Your task to perform on an android device: Open Chrome and go to the settings page Image 0: 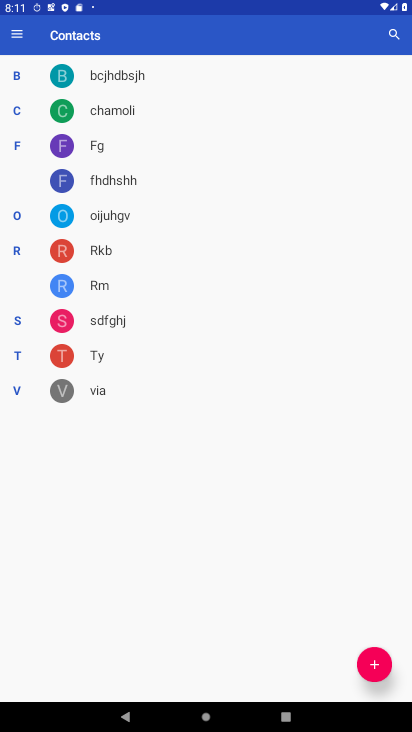
Step 0: press home button
Your task to perform on an android device: Open Chrome and go to the settings page Image 1: 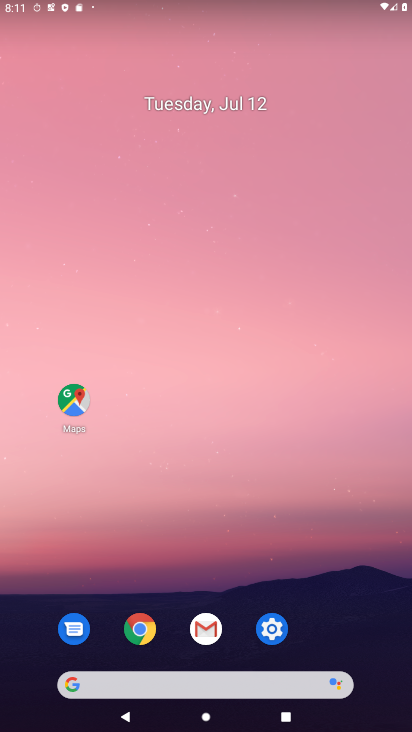
Step 1: click (267, 629)
Your task to perform on an android device: Open Chrome and go to the settings page Image 2: 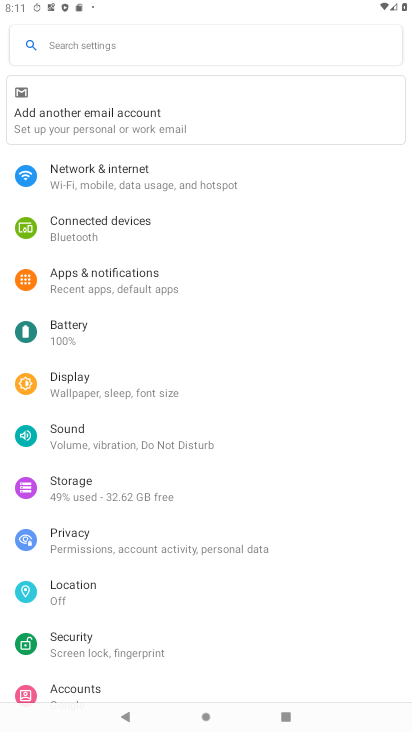
Step 2: press home button
Your task to perform on an android device: Open Chrome and go to the settings page Image 3: 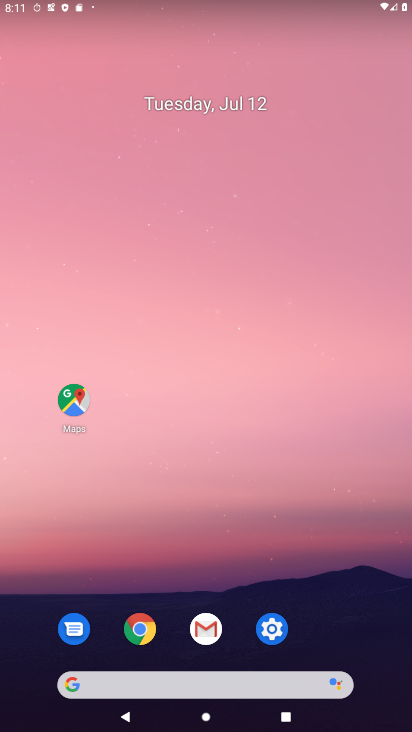
Step 3: click (131, 622)
Your task to perform on an android device: Open Chrome and go to the settings page Image 4: 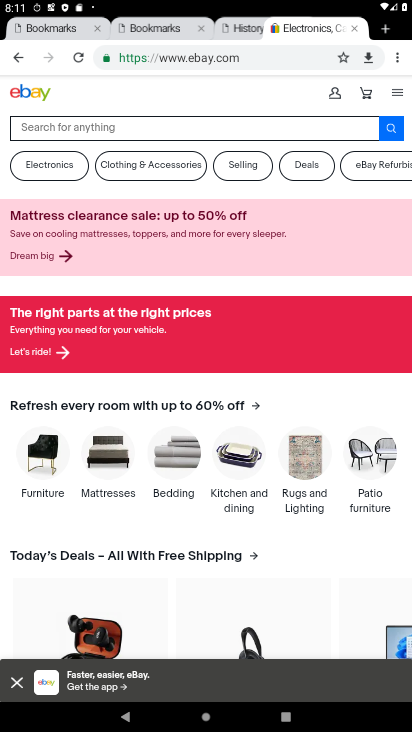
Step 4: click (394, 57)
Your task to perform on an android device: Open Chrome and go to the settings page Image 5: 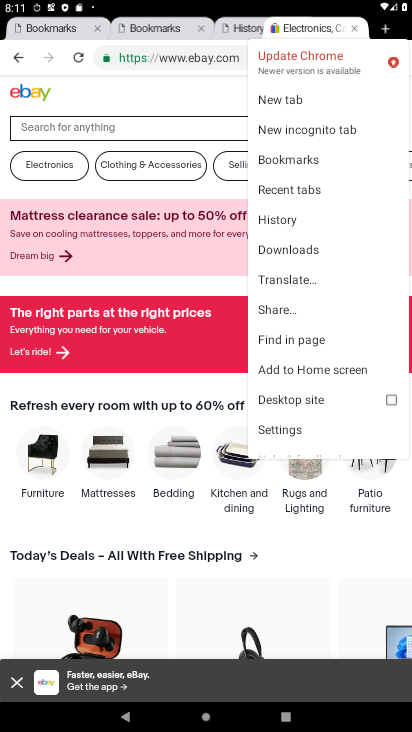
Step 5: click (270, 435)
Your task to perform on an android device: Open Chrome and go to the settings page Image 6: 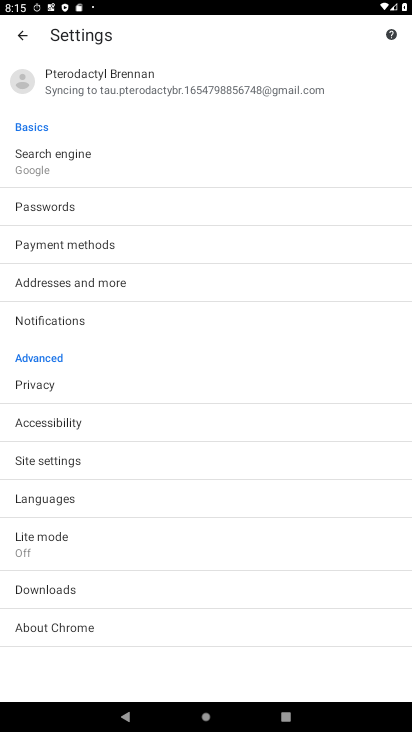
Step 6: task complete